Your task to perform on an android device: allow notifications from all sites in the chrome app Image 0: 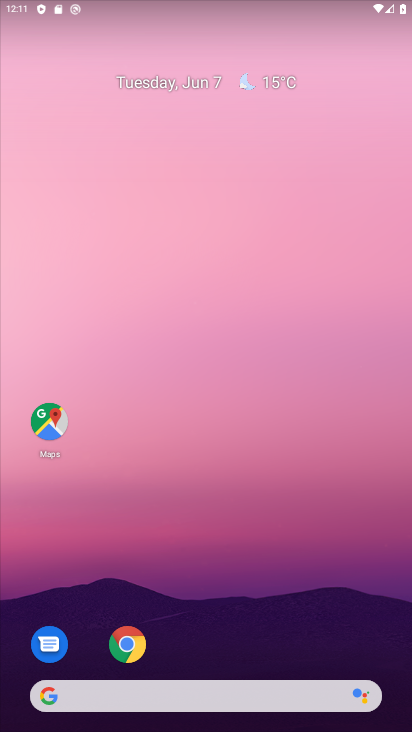
Step 0: drag from (217, 422) to (236, 82)
Your task to perform on an android device: allow notifications from all sites in the chrome app Image 1: 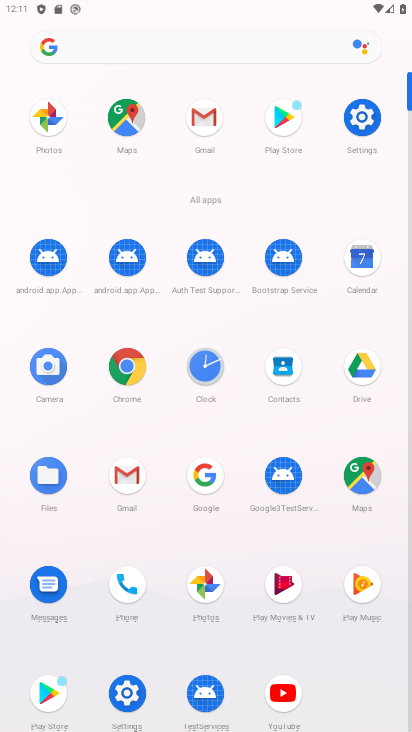
Step 1: click (115, 357)
Your task to perform on an android device: allow notifications from all sites in the chrome app Image 2: 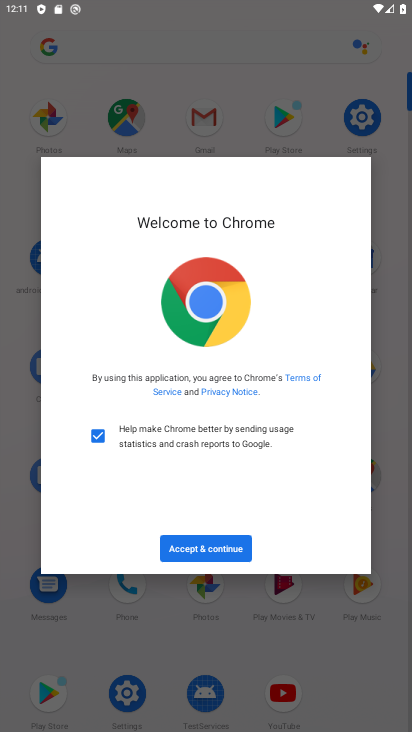
Step 2: click (158, 533)
Your task to perform on an android device: allow notifications from all sites in the chrome app Image 3: 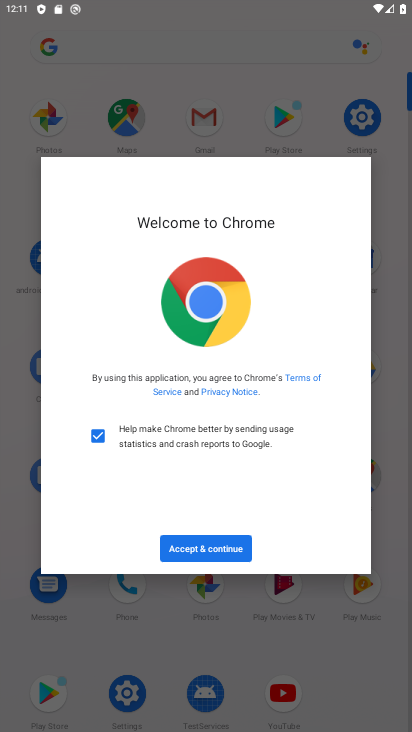
Step 3: click (180, 551)
Your task to perform on an android device: allow notifications from all sites in the chrome app Image 4: 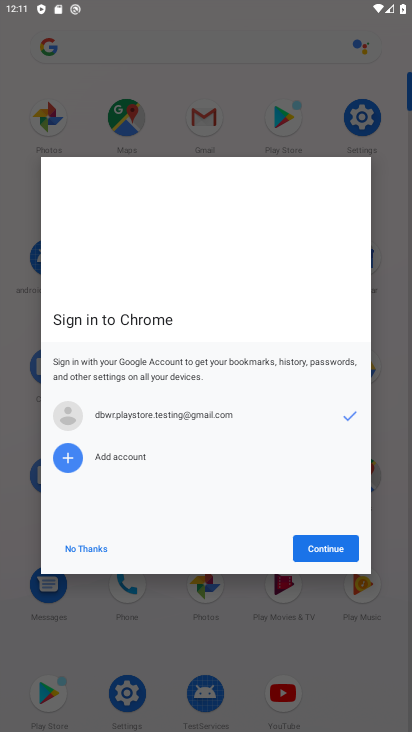
Step 4: click (327, 548)
Your task to perform on an android device: allow notifications from all sites in the chrome app Image 5: 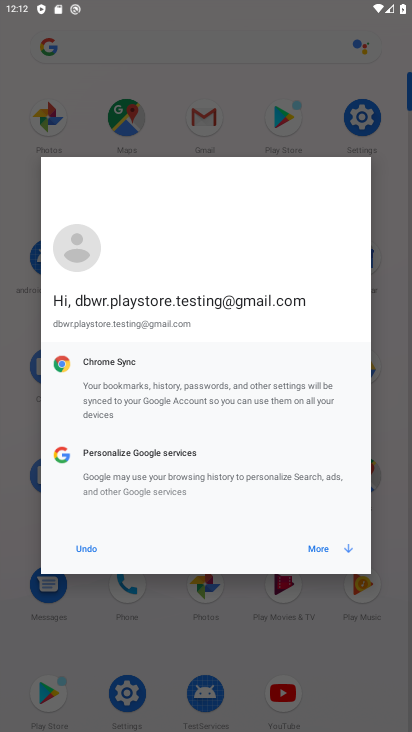
Step 5: click (323, 539)
Your task to perform on an android device: allow notifications from all sites in the chrome app Image 6: 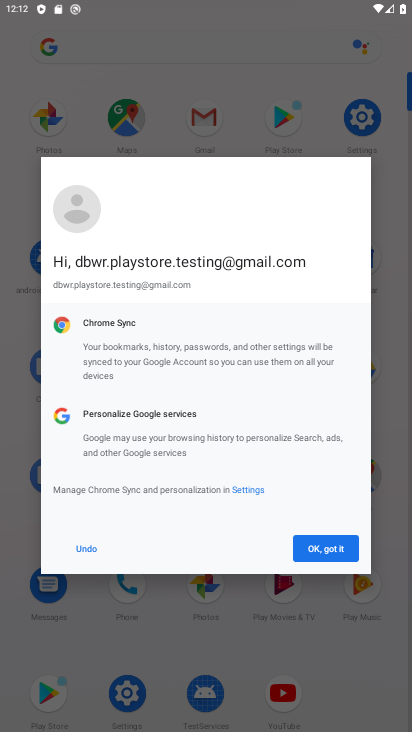
Step 6: click (323, 538)
Your task to perform on an android device: allow notifications from all sites in the chrome app Image 7: 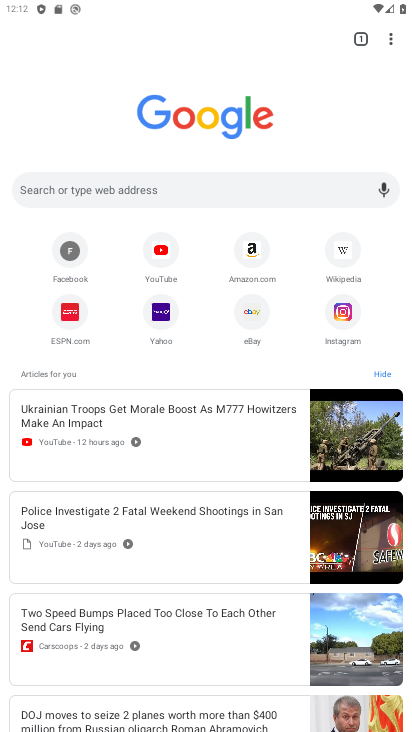
Step 7: click (384, 37)
Your task to perform on an android device: allow notifications from all sites in the chrome app Image 8: 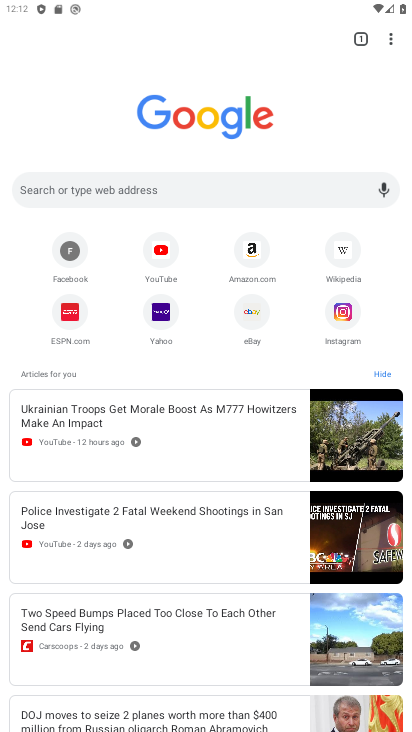
Step 8: click (391, 43)
Your task to perform on an android device: allow notifications from all sites in the chrome app Image 9: 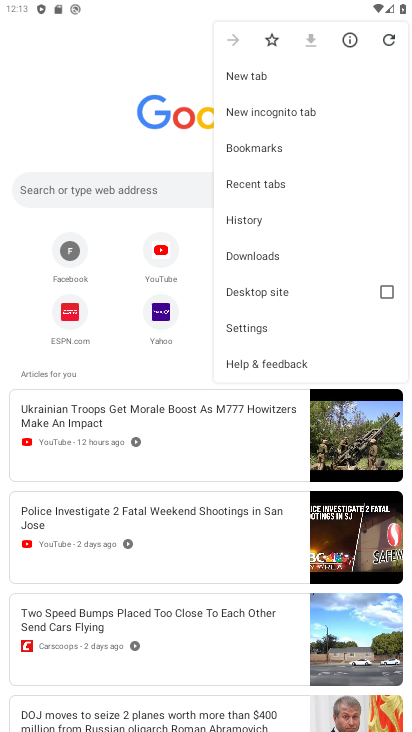
Step 9: click (244, 317)
Your task to perform on an android device: allow notifications from all sites in the chrome app Image 10: 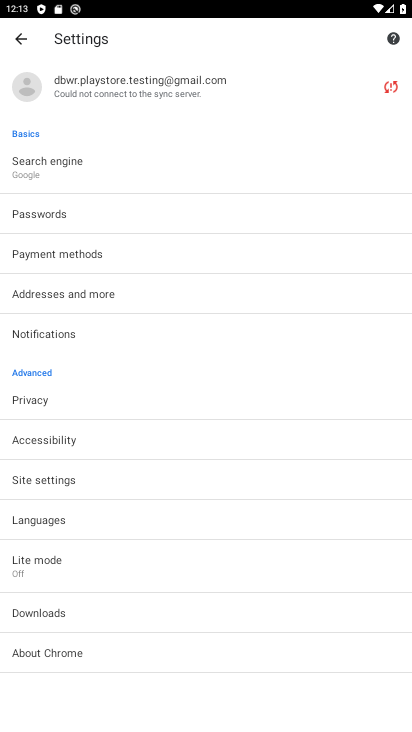
Step 10: click (47, 338)
Your task to perform on an android device: allow notifications from all sites in the chrome app Image 11: 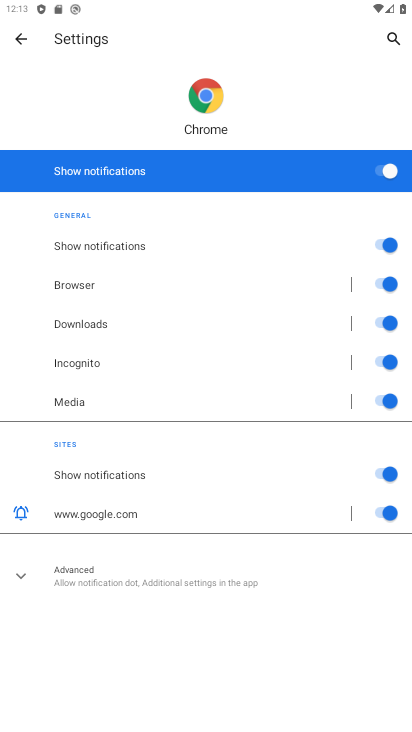
Step 11: task complete